Your task to perform on an android device: Show the shopping cart on costco.com. Search for macbook air on costco.com, select the first entry, and add it to the cart. Image 0: 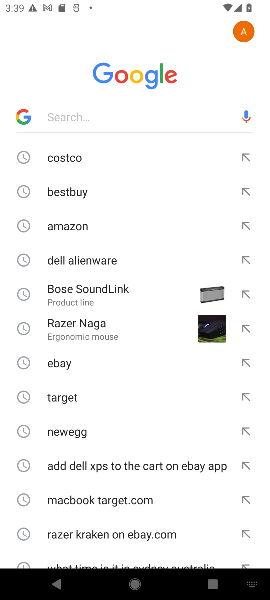
Step 0: click (97, 163)
Your task to perform on an android device: Show the shopping cart on costco.com. Search for macbook air on costco.com, select the first entry, and add it to the cart. Image 1: 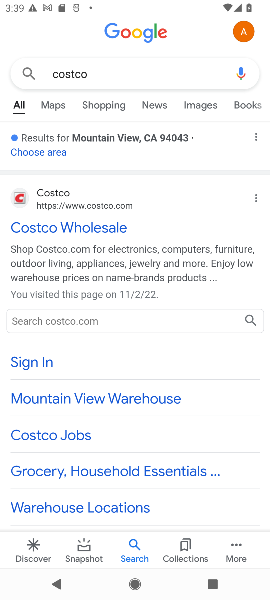
Step 1: click (91, 235)
Your task to perform on an android device: Show the shopping cart on costco.com. Search for macbook air on costco.com, select the first entry, and add it to the cart. Image 2: 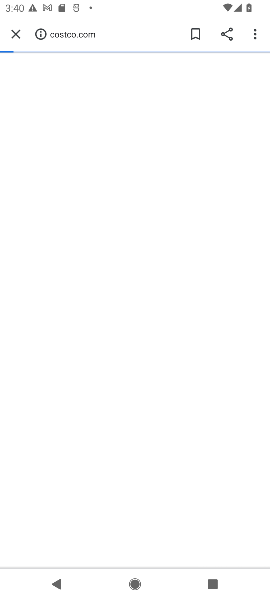
Step 2: task complete